Your task to perform on an android device: turn on priority inbox in the gmail app Image 0: 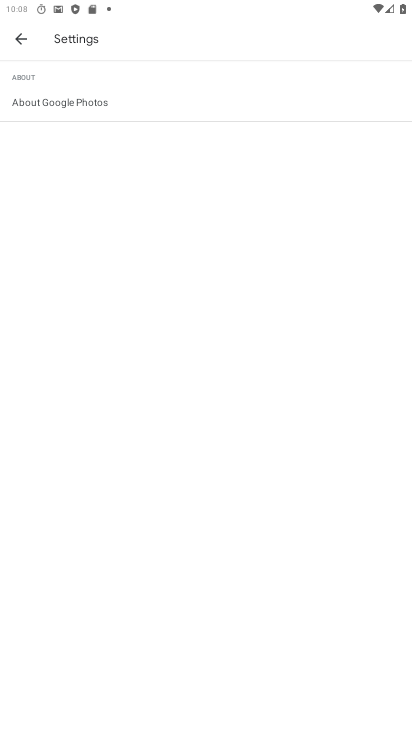
Step 0: press home button
Your task to perform on an android device: turn on priority inbox in the gmail app Image 1: 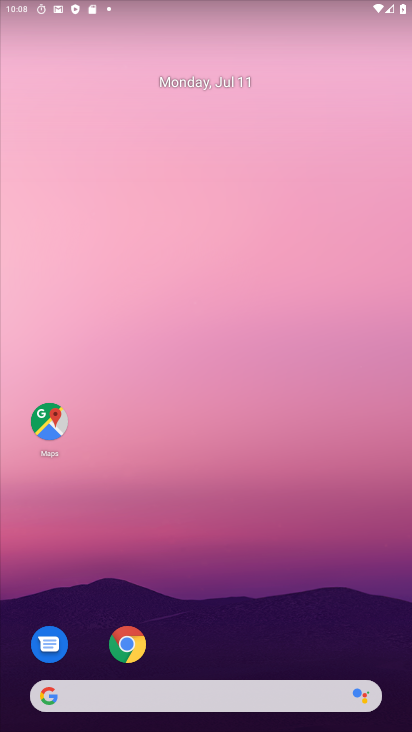
Step 1: drag from (210, 653) to (216, 134)
Your task to perform on an android device: turn on priority inbox in the gmail app Image 2: 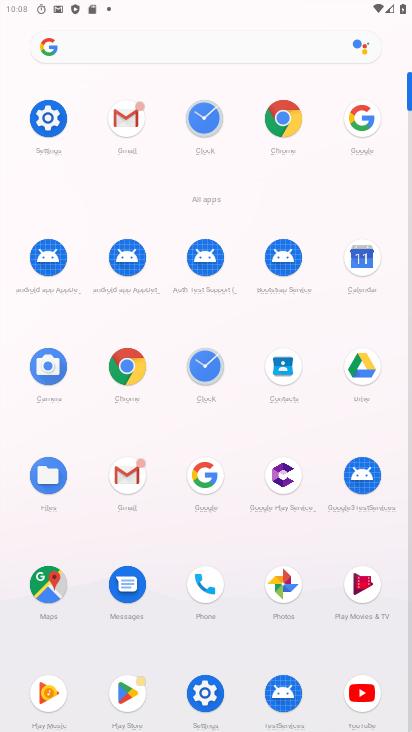
Step 2: click (127, 124)
Your task to perform on an android device: turn on priority inbox in the gmail app Image 3: 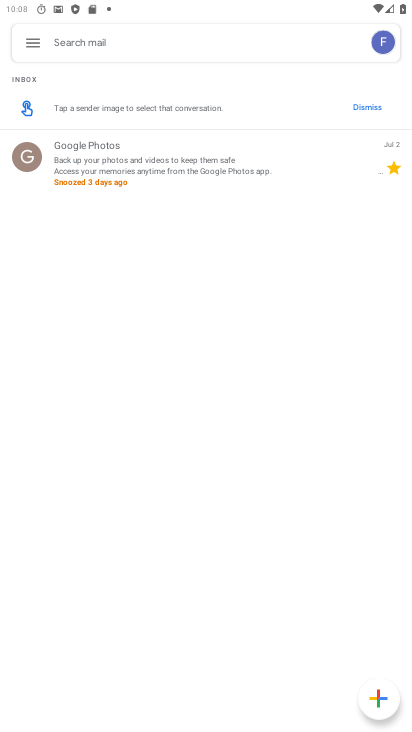
Step 3: click (24, 39)
Your task to perform on an android device: turn on priority inbox in the gmail app Image 4: 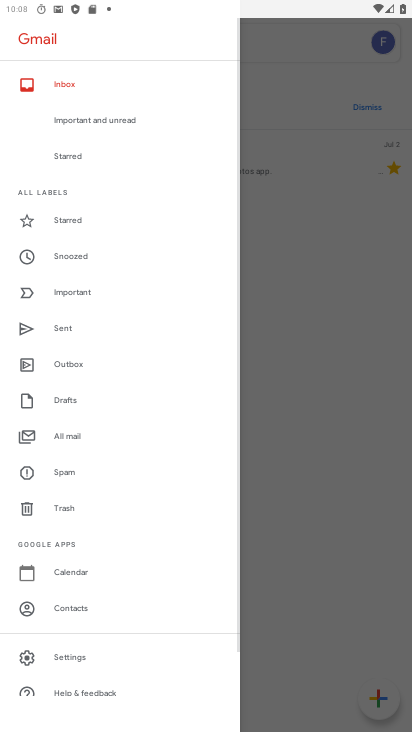
Step 4: click (75, 654)
Your task to perform on an android device: turn on priority inbox in the gmail app Image 5: 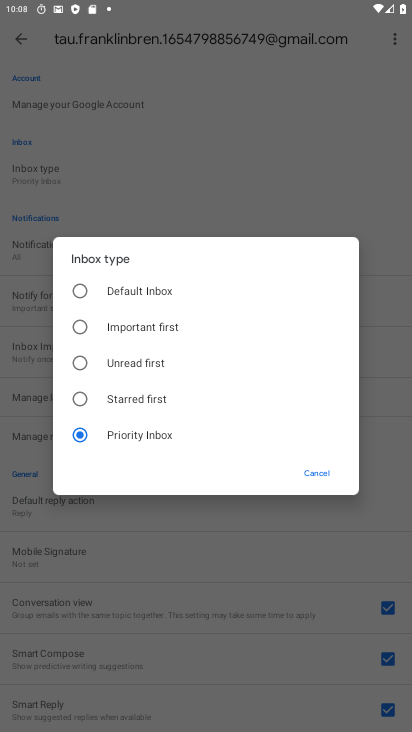
Step 5: task complete